Your task to perform on an android device: Go to privacy settings Image 0: 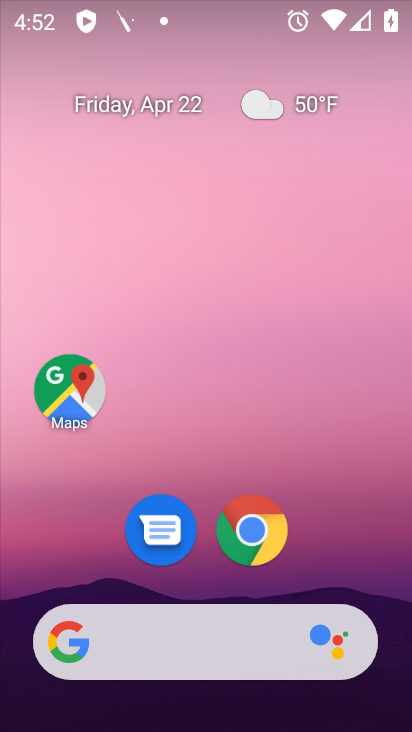
Step 0: drag from (330, 548) to (328, 432)
Your task to perform on an android device: Go to privacy settings Image 1: 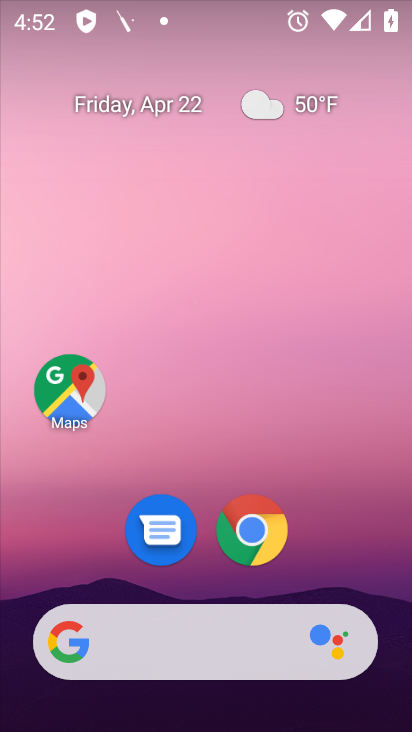
Step 1: drag from (286, 221) to (274, 5)
Your task to perform on an android device: Go to privacy settings Image 2: 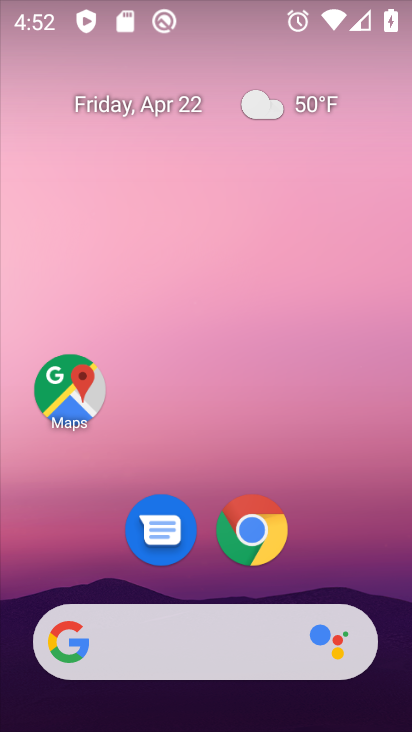
Step 2: drag from (345, 553) to (312, 118)
Your task to perform on an android device: Go to privacy settings Image 3: 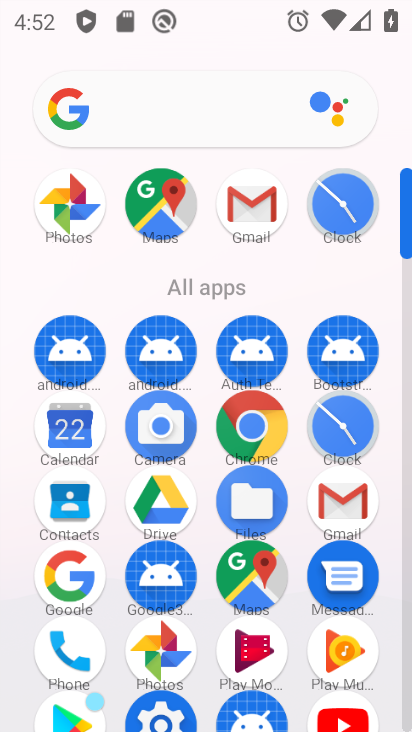
Step 3: click (237, 421)
Your task to perform on an android device: Go to privacy settings Image 4: 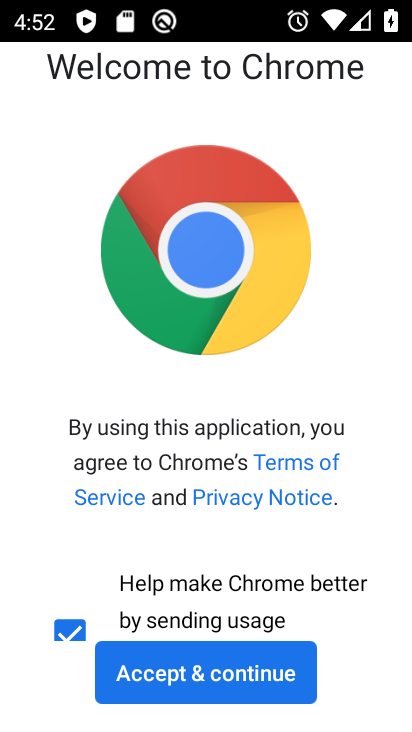
Step 4: click (261, 679)
Your task to perform on an android device: Go to privacy settings Image 5: 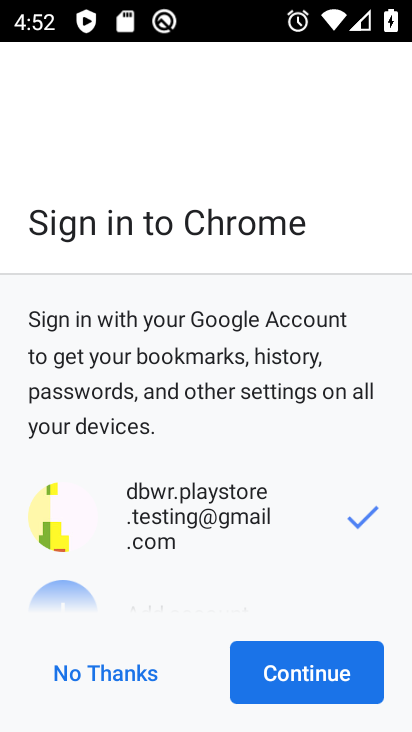
Step 5: click (325, 687)
Your task to perform on an android device: Go to privacy settings Image 6: 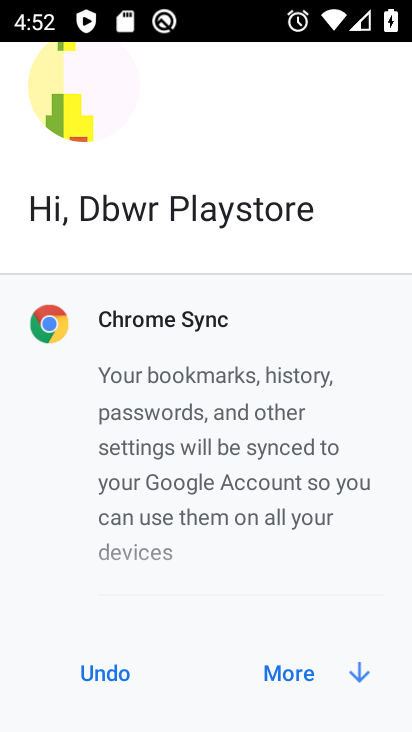
Step 6: click (295, 671)
Your task to perform on an android device: Go to privacy settings Image 7: 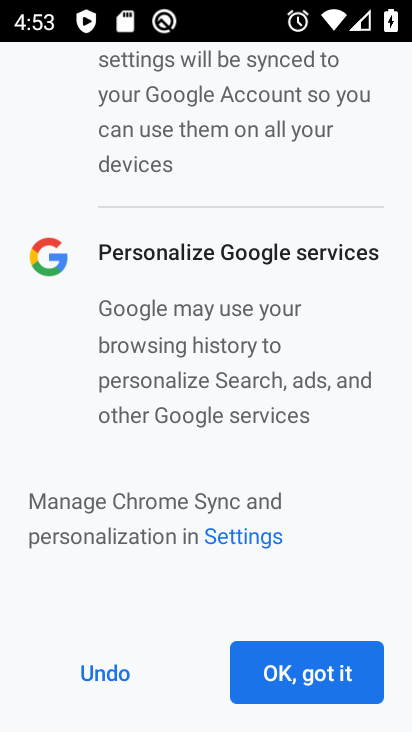
Step 7: click (353, 671)
Your task to perform on an android device: Go to privacy settings Image 8: 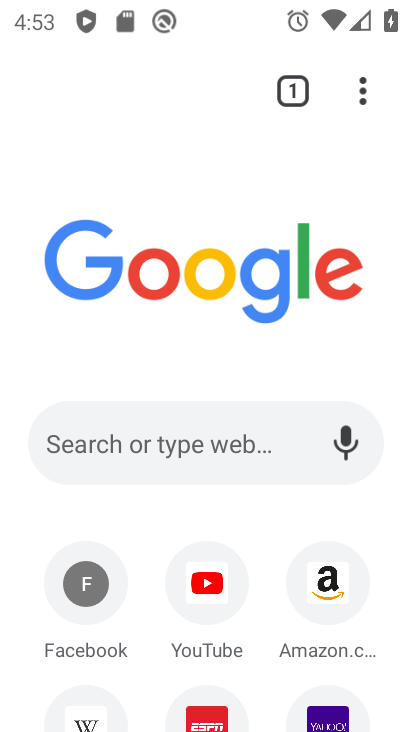
Step 8: drag from (359, 93) to (143, 563)
Your task to perform on an android device: Go to privacy settings Image 9: 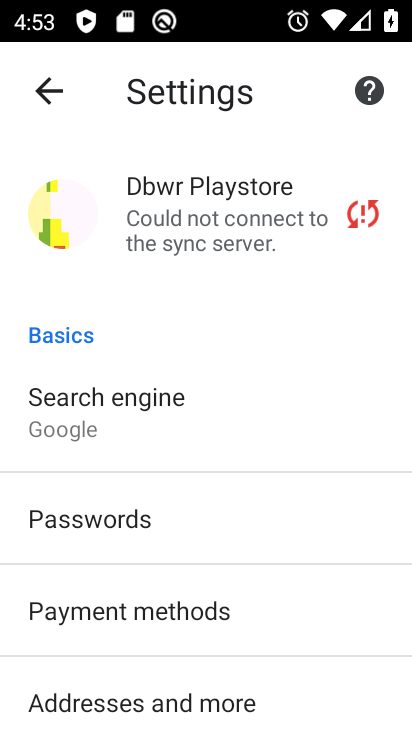
Step 9: drag from (280, 576) to (266, 192)
Your task to perform on an android device: Go to privacy settings Image 10: 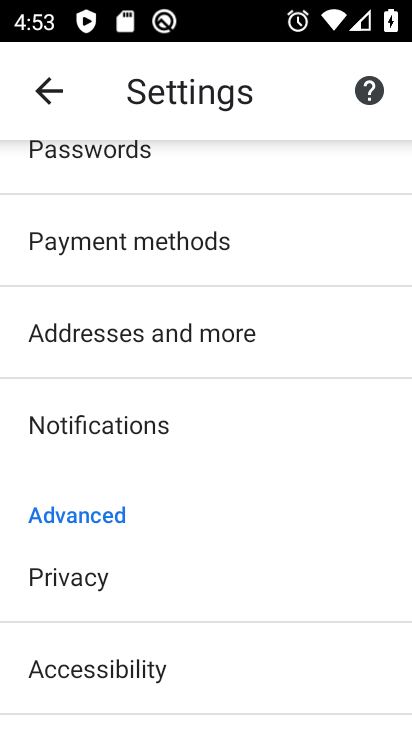
Step 10: click (47, 570)
Your task to perform on an android device: Go to privacy settings Image 11: 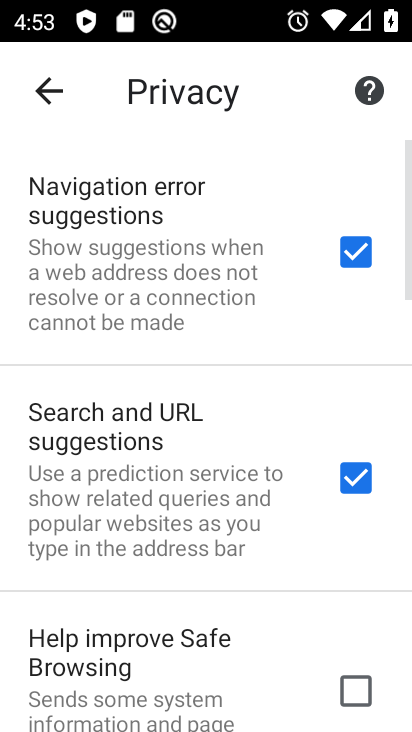
Step 11: task complete